Your task to perform on an android device: Open Yahoo.com Image 0: 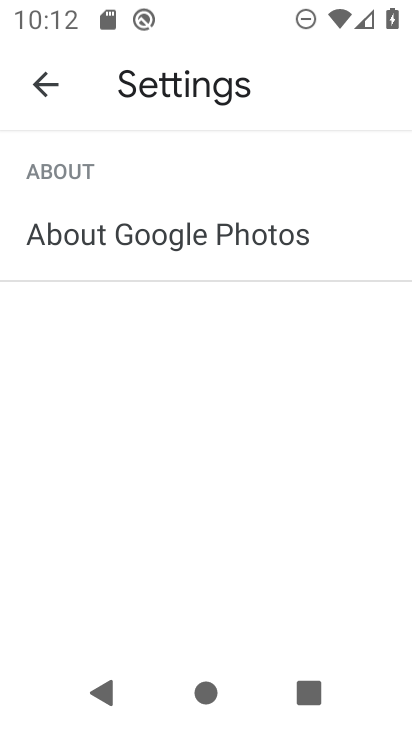
Step 0: click (265, 457)
Your task to perform on an android device: Open Yahoo.com Image 1: 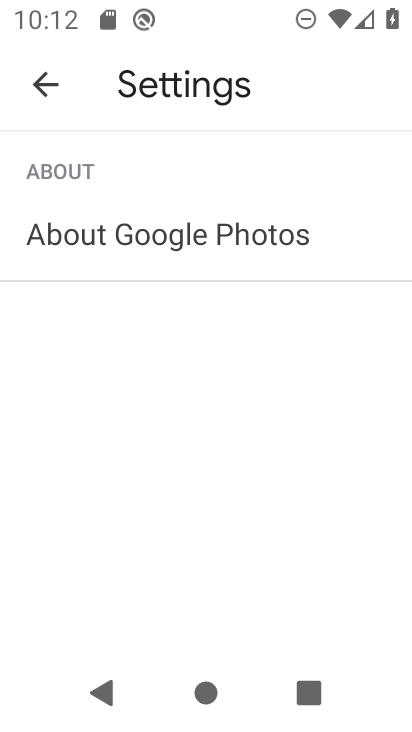
Step 1: press home button
Your task to perform on an android device: Open Yahoo.com Image 2: 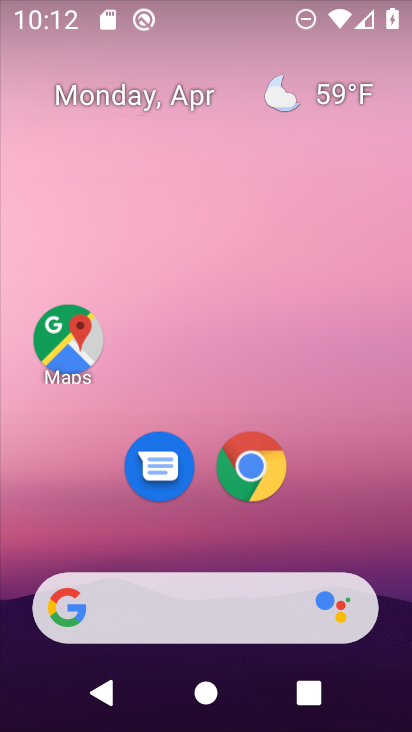
Step 2: click (245, 454)
Your task to perform on an android device: Open Yahoo.com Image 3: 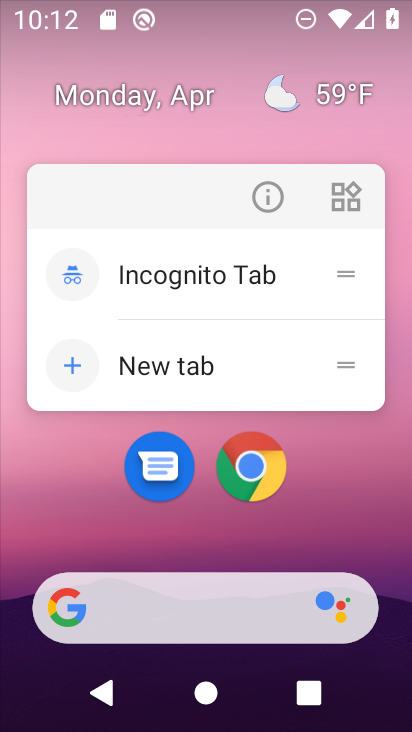
Step 3: click (228, 446)
Your task to perform on an android device: Open Yahoo.com Image 4: 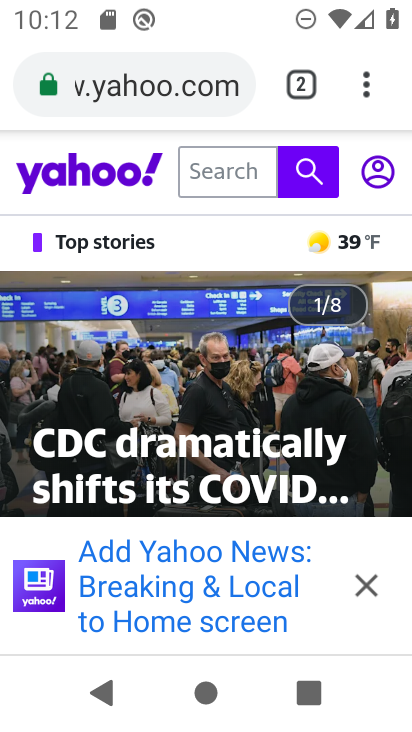
Step 4: task complete